Your task to perform on an android device: Turn on the flashlight Image 0: 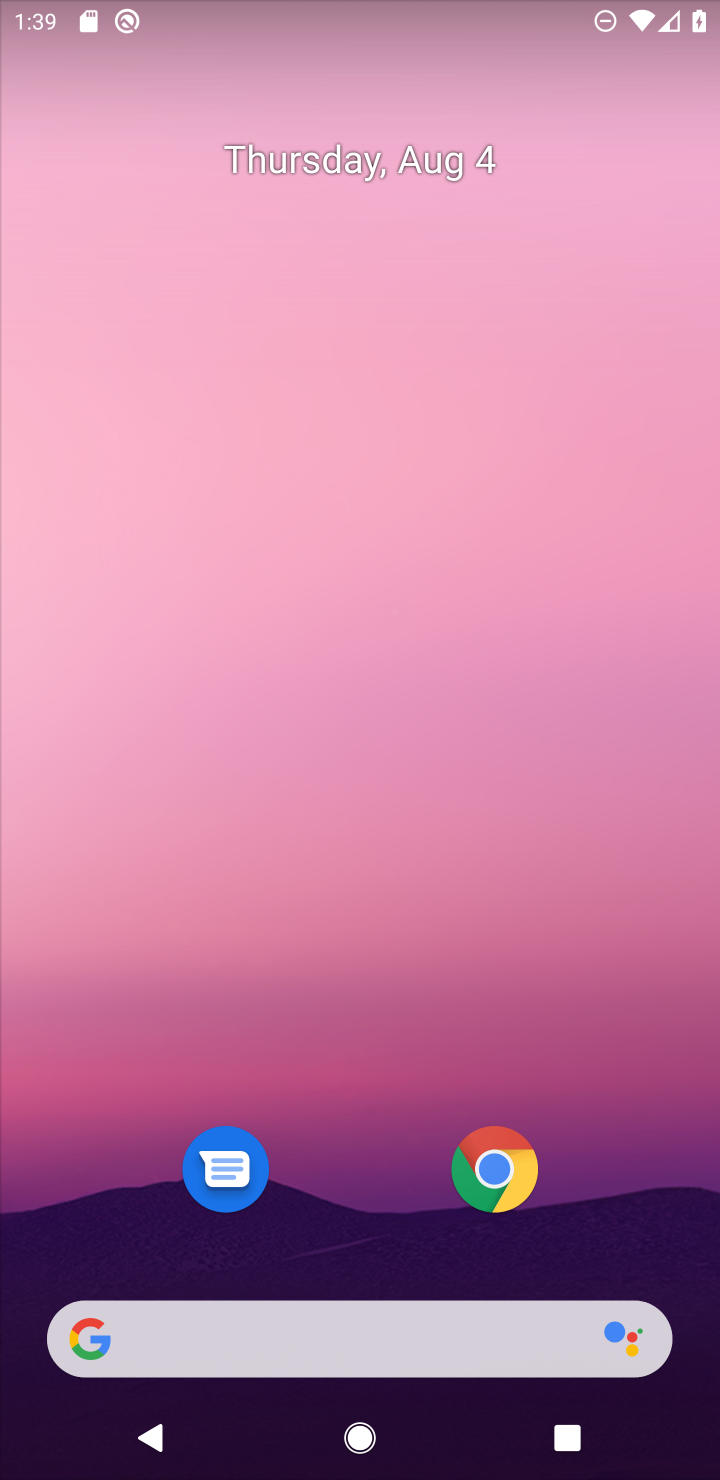
Step 0: drag from (362, 6) to (336, 1243)
Your task to perform on an android device: Turn on the flashlight Image 1: 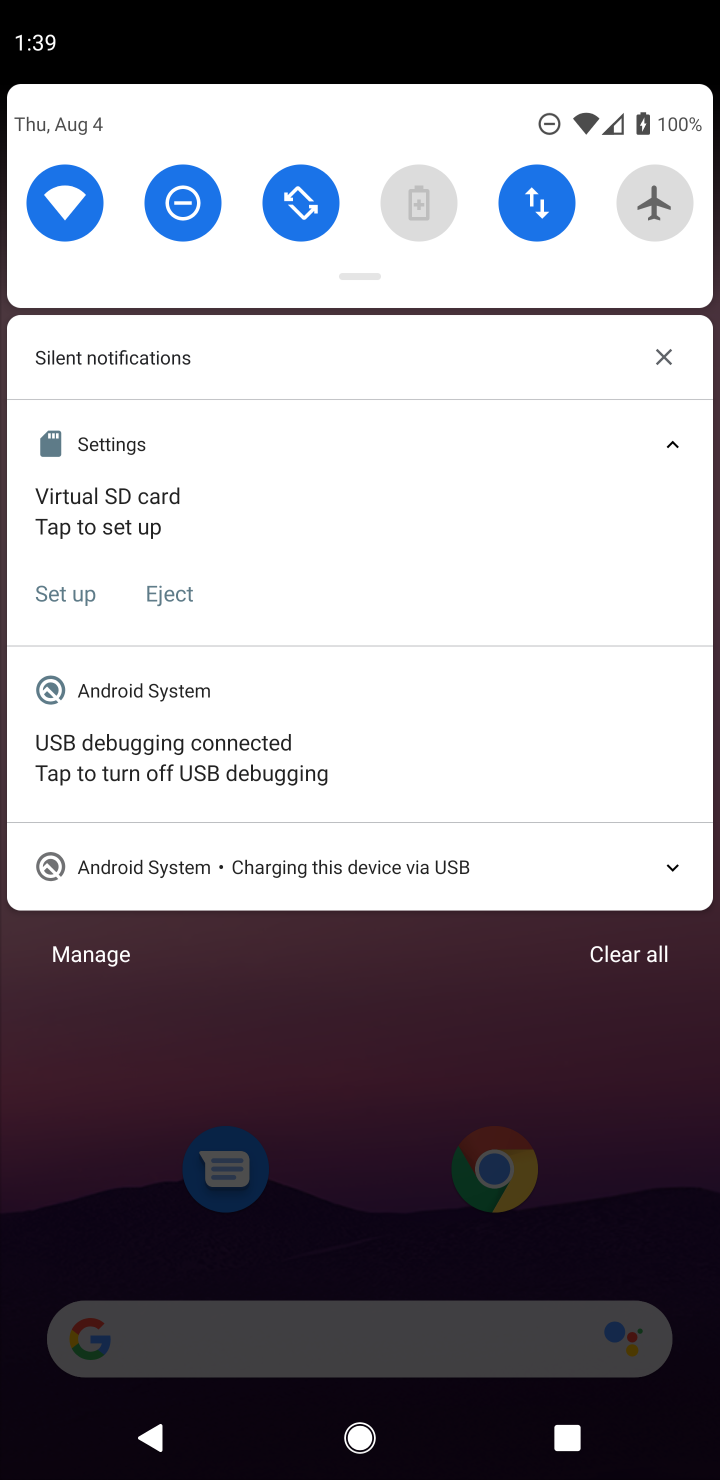
Step 1: task complete